Your task to perform on an android device: open chrome privacy settings Image 0: 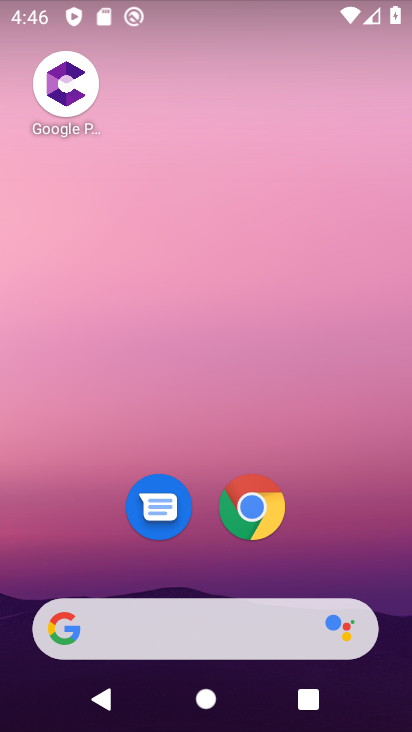
Step 0: click (254, 510)
Your task to perform on an android device: open chrome privacy settings Image 1: 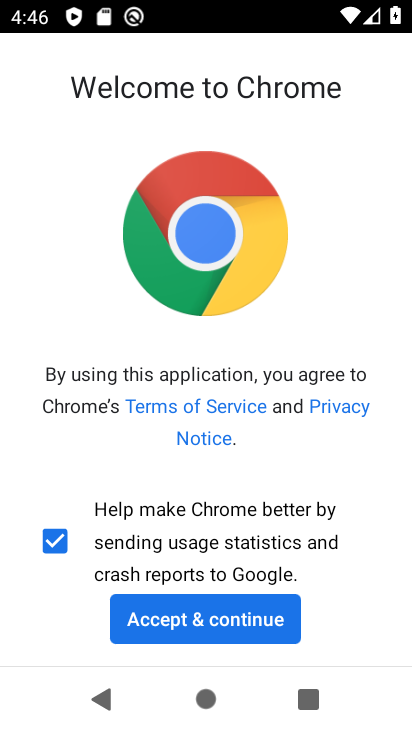
Step 1: click (207, 621)
Your task to perform on an android device: open chrome privacy settings Image 2: 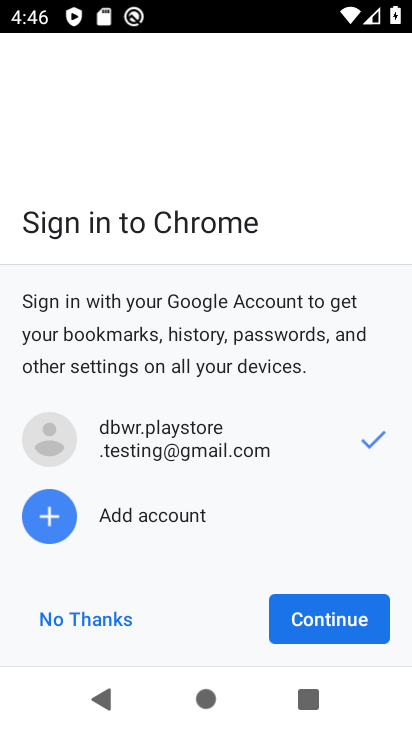
Step 2: click (321, 634)
Your task to perform on an android device: open chrome privacy settings Image 3: 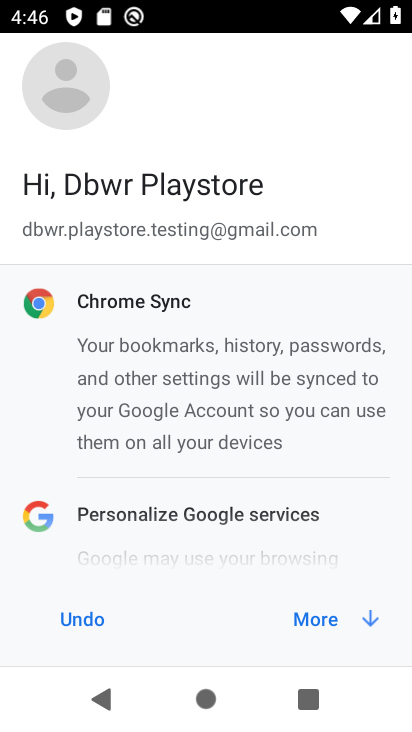
Step 3: click (333, 618)
Your task to perform on an android device: open chrome privacy settings Image 4: 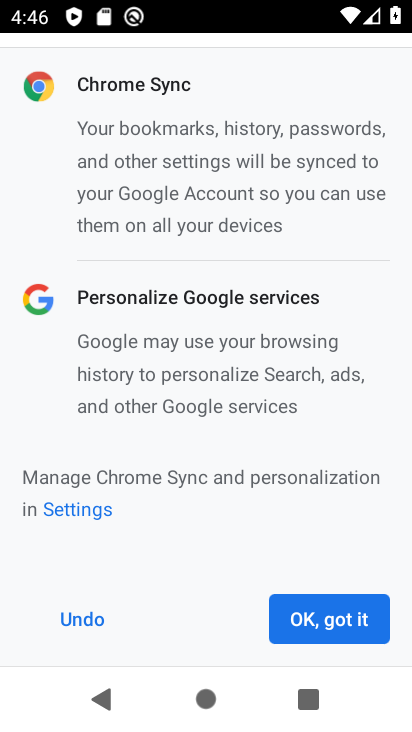
Step 4: click (333, 618)
Your task to perform on an android device: open chrome privacy settings Image 5: 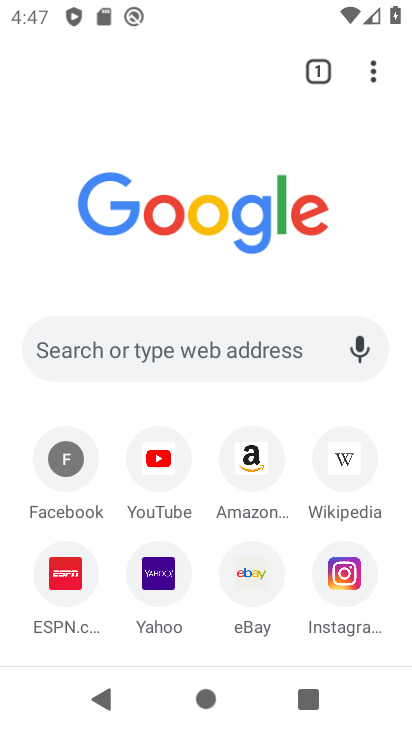
Step 5: click (374, 71)
Your task to perform on an android device: open chrome privacy settings Image 6: 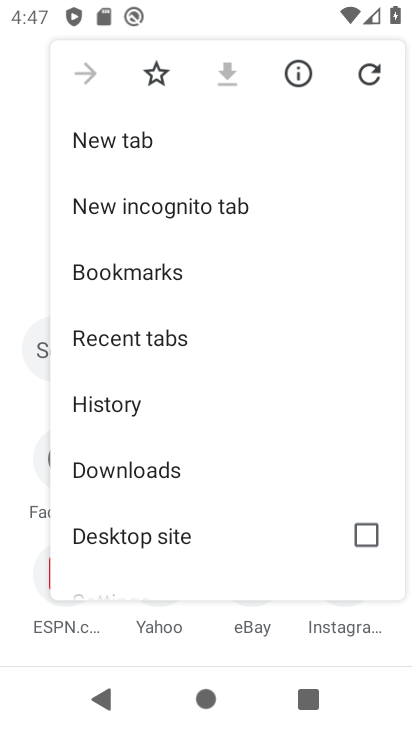
Step 6: drag from (165, 497) to (257, 385)
Your task to perform on an android device: open chrome privacy settings Image 7: 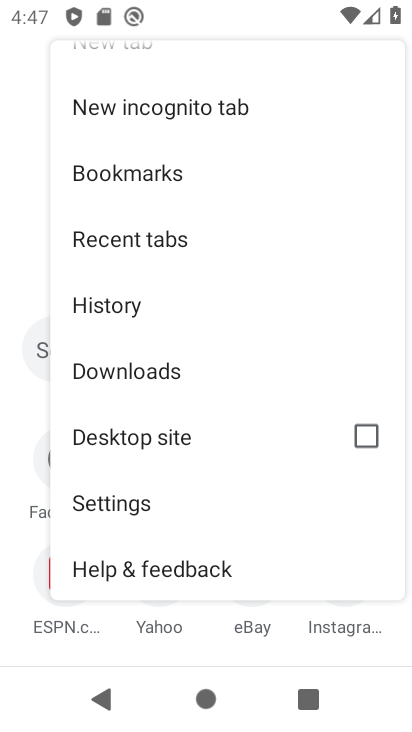
Step 7: click (138, 507)
Your task to perform on an android device: open chrome privacy settings Image 8: 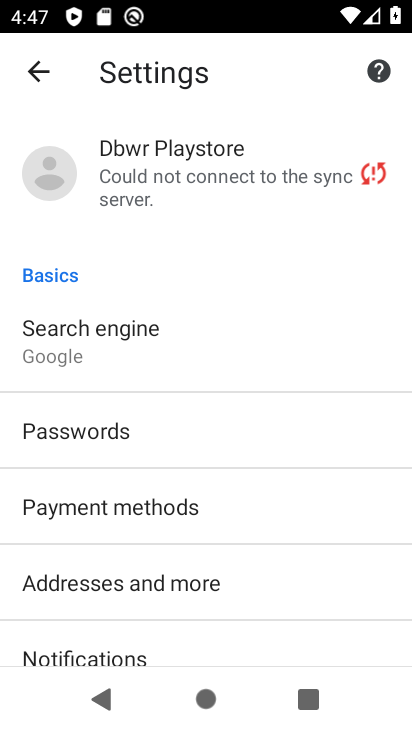
Step 8: drag from (139, 489) to (235, 367)
Your task to perform on an android device: open chrome privacy settings Image 9: 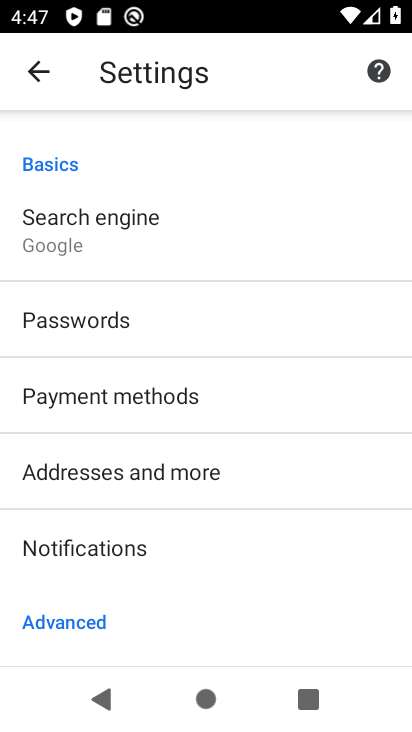
Step 9: drag from (139, 524) to (223, 430)
Your task to perform on an android device: open chrome privacy settings Image 10: 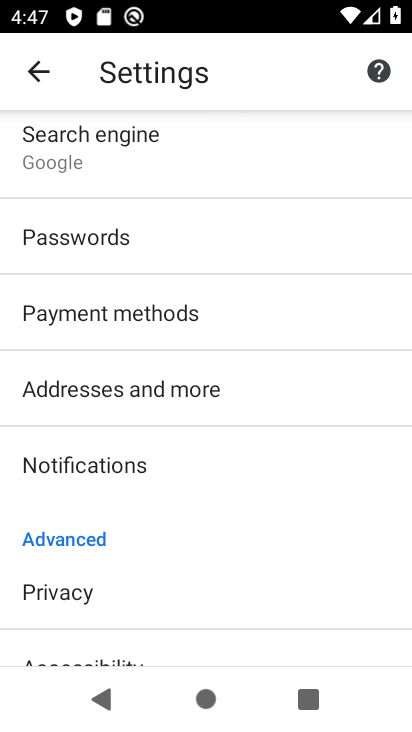
Step 10: drag from (131, 542) to (221, 415)
Your task to perform on an android device: open chrome privacy settings Image 11: 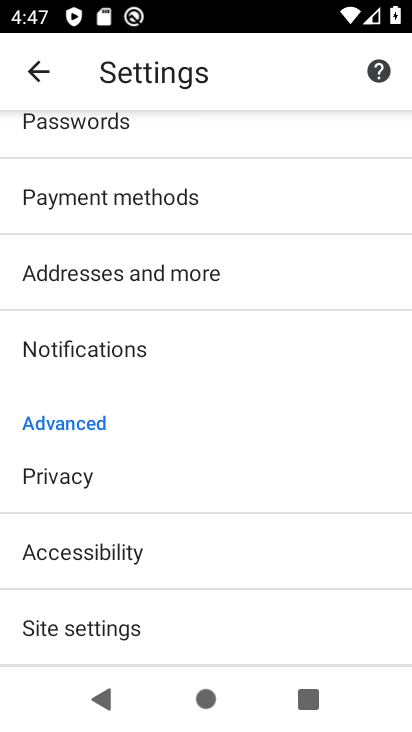
Step 11: click (81, 472)
Your task to perform on an android device: open chrome privacy settings Image 12: 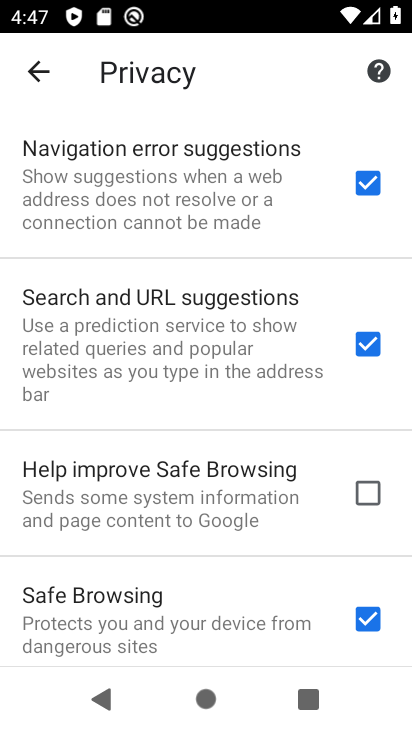
Step 12: task complete